Your task to perform on an android device: Open Wikipedia Image 0: 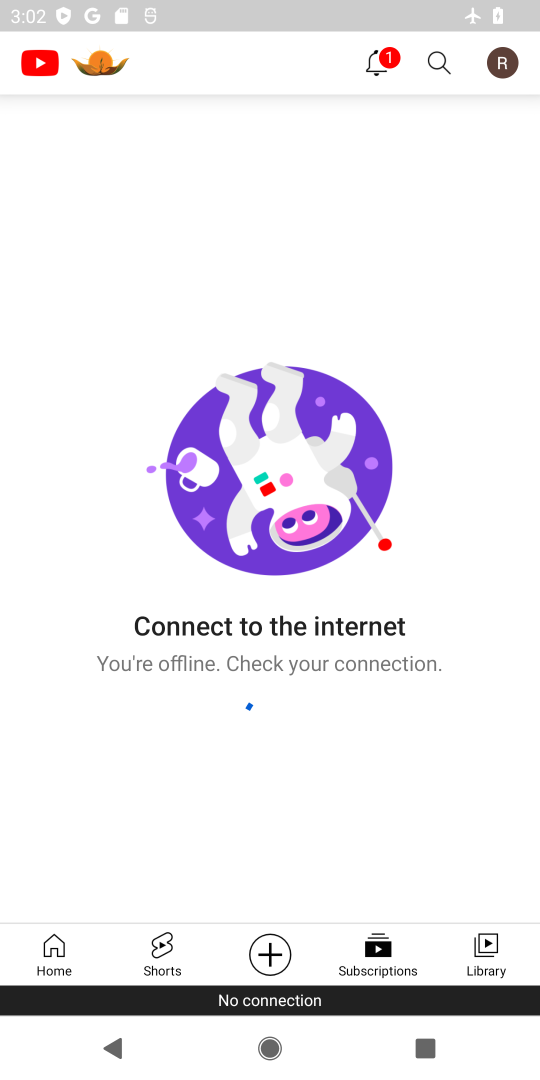
Step 0: press home button
Your task to perform on an android device: Open Wikipedia Image 1: 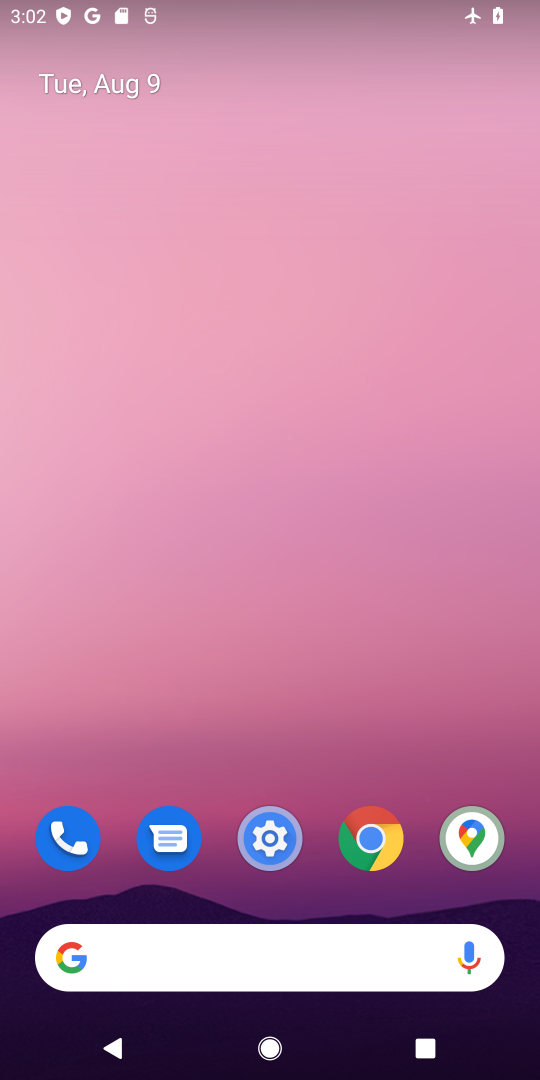
Step 1: drag from (299, 748) to (501, 49)
Your task to perform on an android device: Open Wikipedia Image 2: 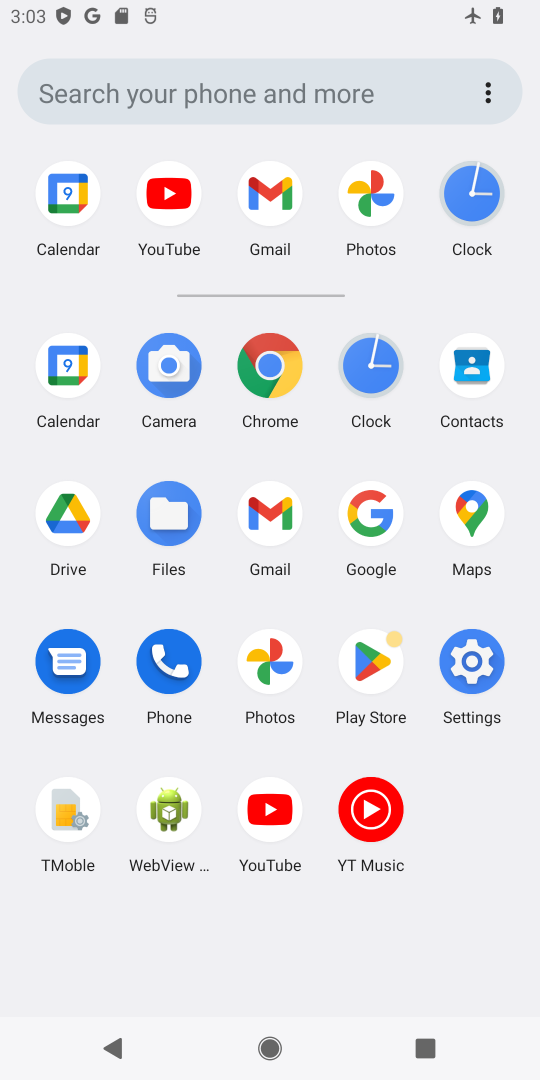
Step 2: click (264, 355)
Your task to perform on an android device: Open Wikipedia Image 3: 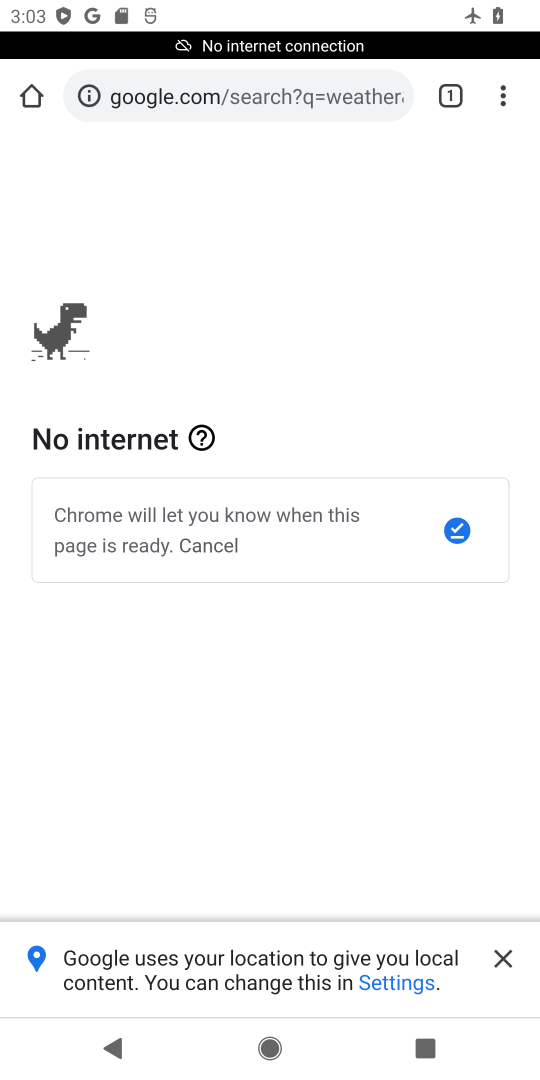
Step 3: click (262, 99)
Your task to perform on an android device: Open Wikipedia Image 4: 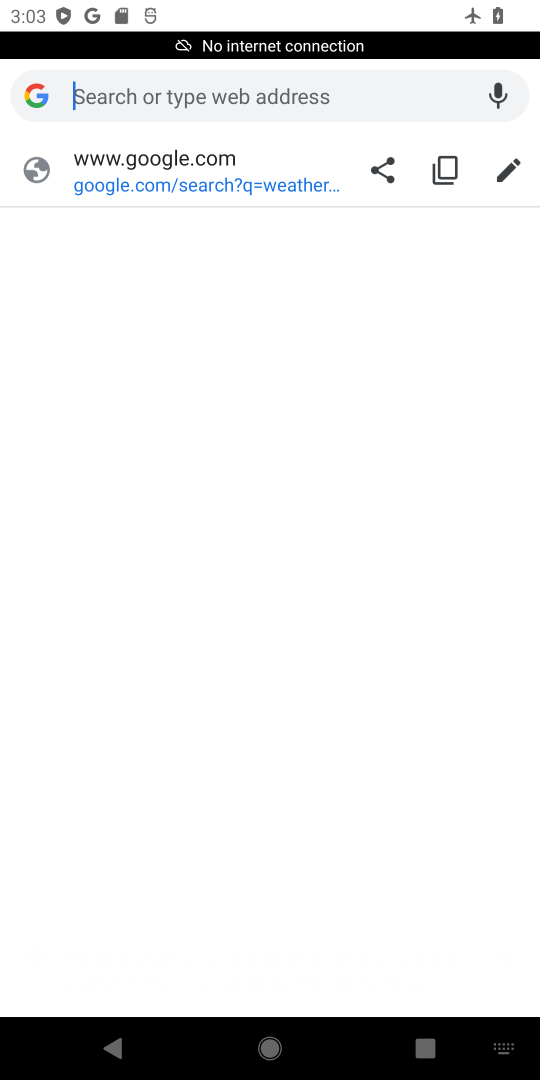
Step 4: type "wikipedia"
Your task to perform on an android device: Open Wikipedia Image 5: 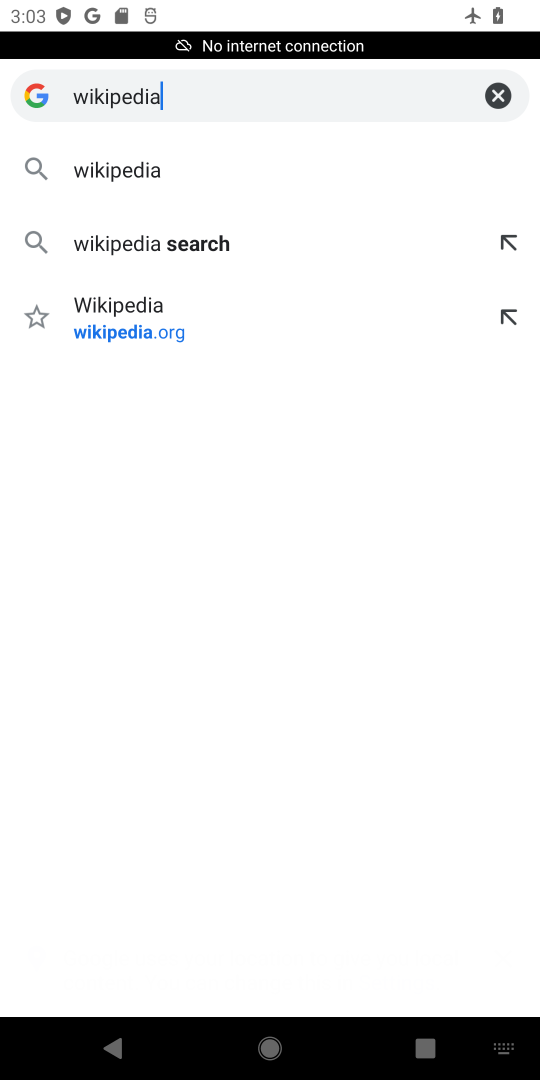
Step 5: click (177, 135)
Your task to perform on an android device: Open Wikipedia Image 6: 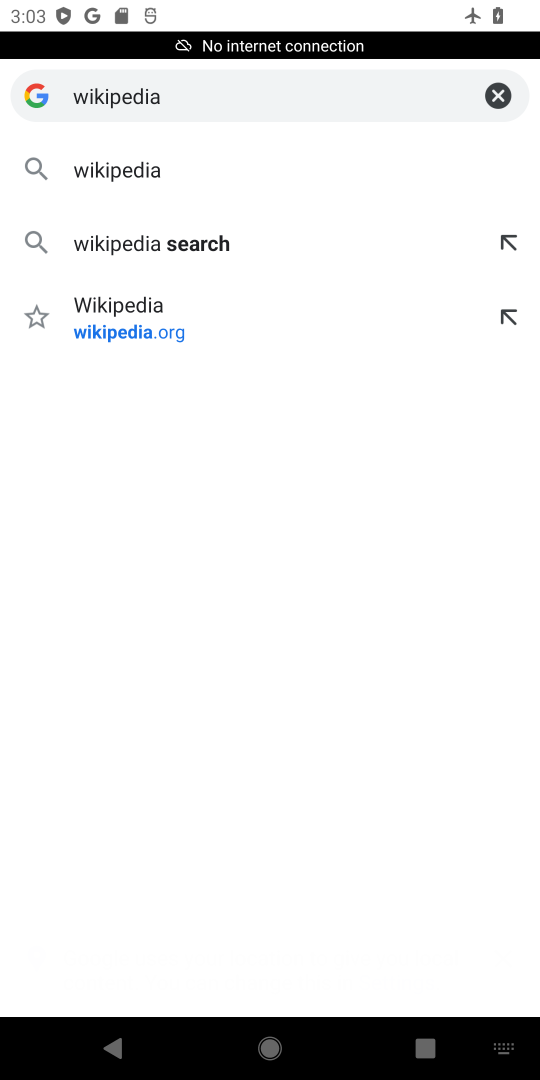
Step 6: click (120, 154)
Your task to perform on an android device: Open Wikipedia Image 7: 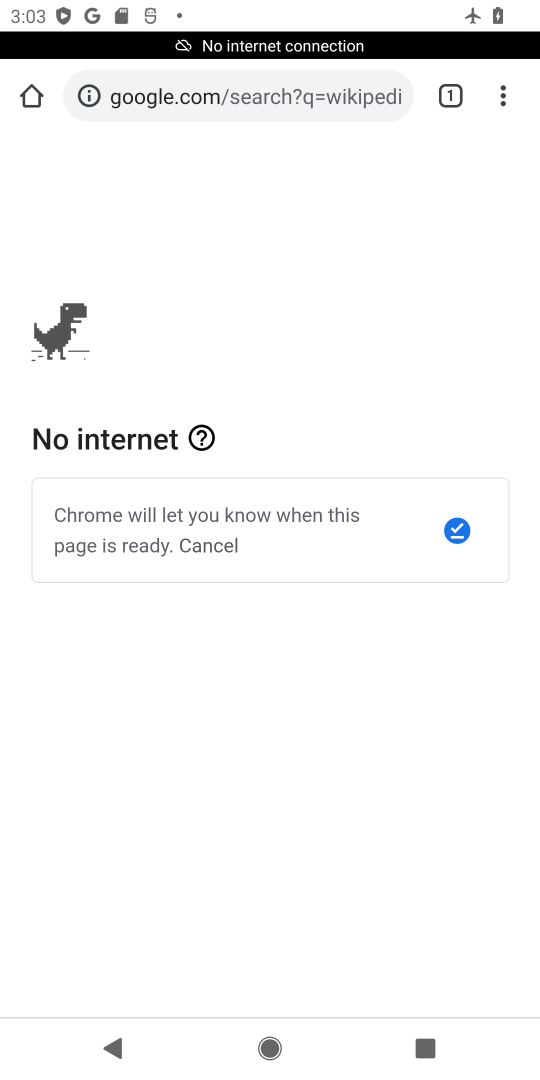
Step 7: task complete